Your task to perform on an android device: remove spam from my inbox in the gmail app Image 0: 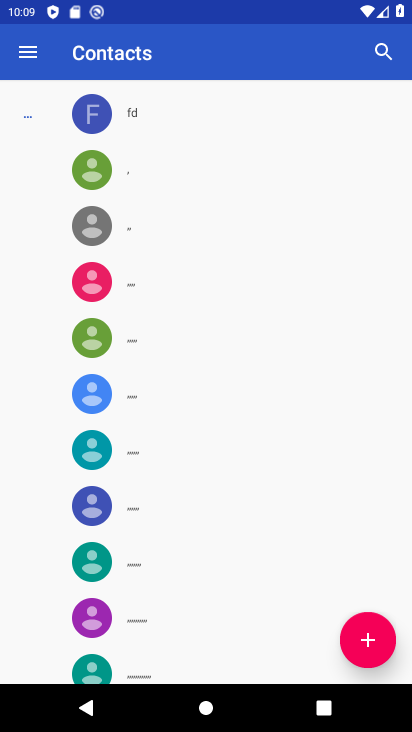
Step 0: press home button
Your task to perform on an android device: remove spam from my inbox in the gmail app Image 1: 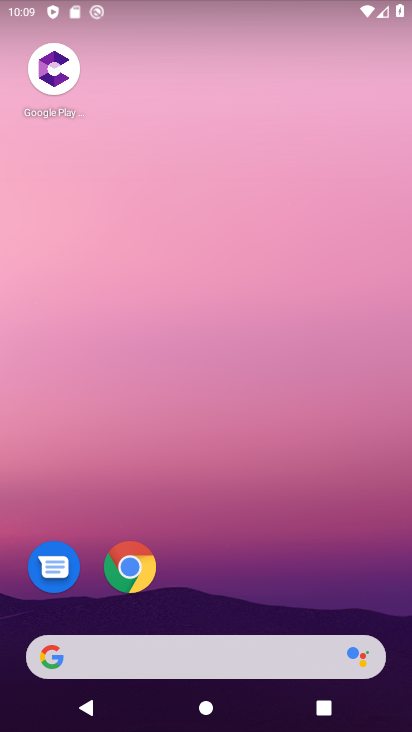
Step 1: drag from (298, 555) to (238, 7)
Your task to perform on an android device: remove spam from my inbox in the gmail app Image 2: 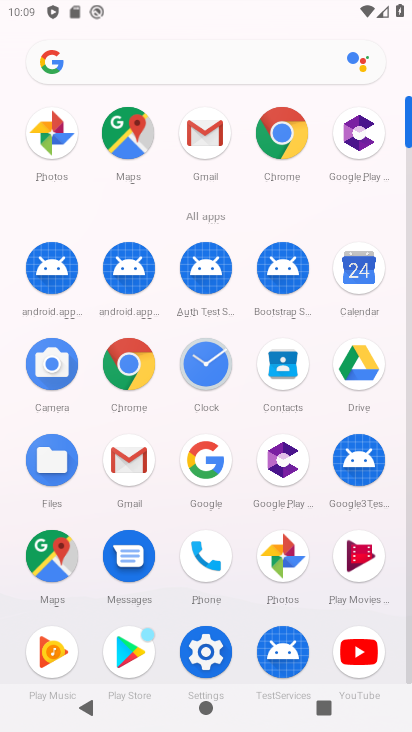
Step 2: click (205, 131)
Your task to perform on an android device: remove spam from my inbox in the gmail app Image 3: 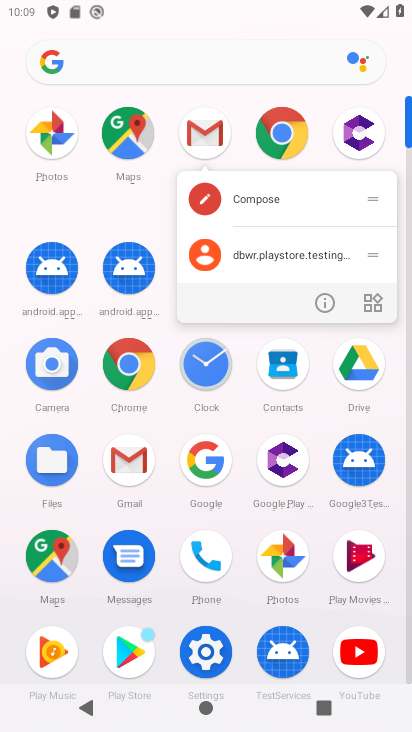
Step 3: click (220, 137)
Your task to perform on an android device: remove spam from my inbox in the gmail app Image 4: 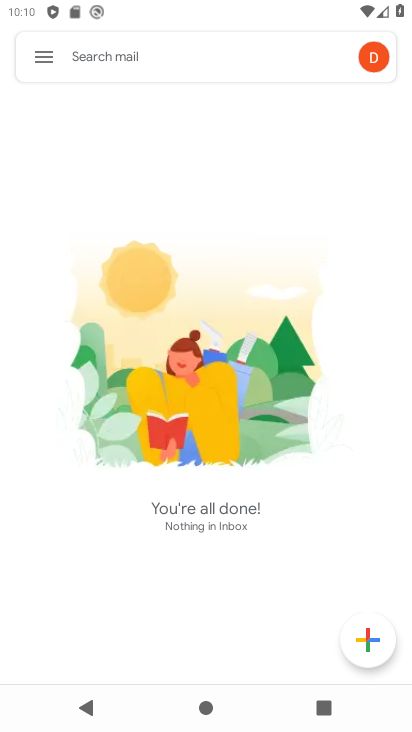
Step 4: click (40, 59)
Your task to perform on an android device: remove spam from my inbox in the gmail app Image 5: 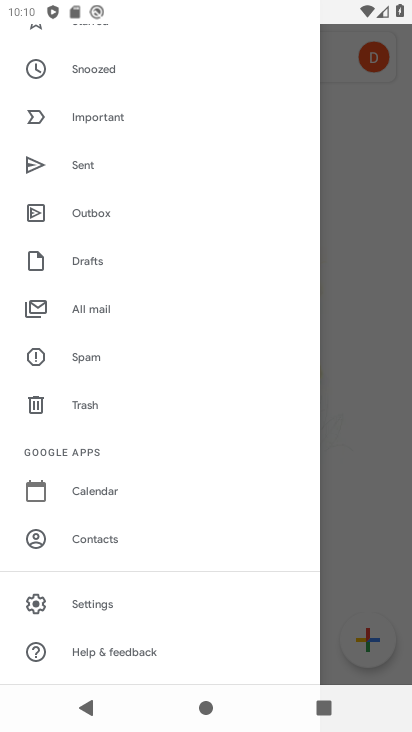
Step 5: click (93, 342)
Your task to perform on an android device: remove spam from my inbox in the gmail app Image 6: 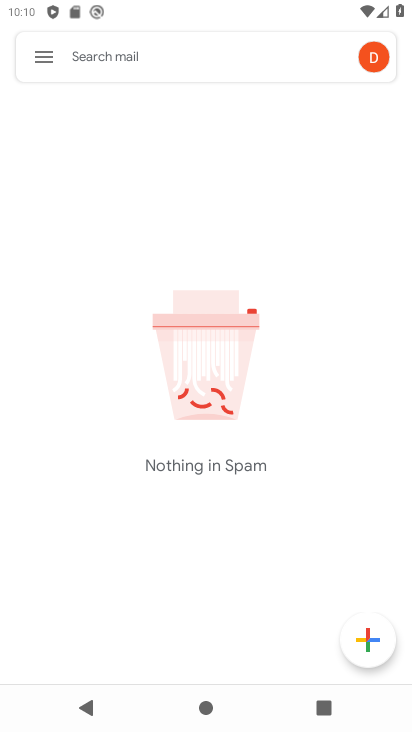
Step 6: task complete